Your task to perform on an android device: turn on notifications settings in the gmail app Image 0: 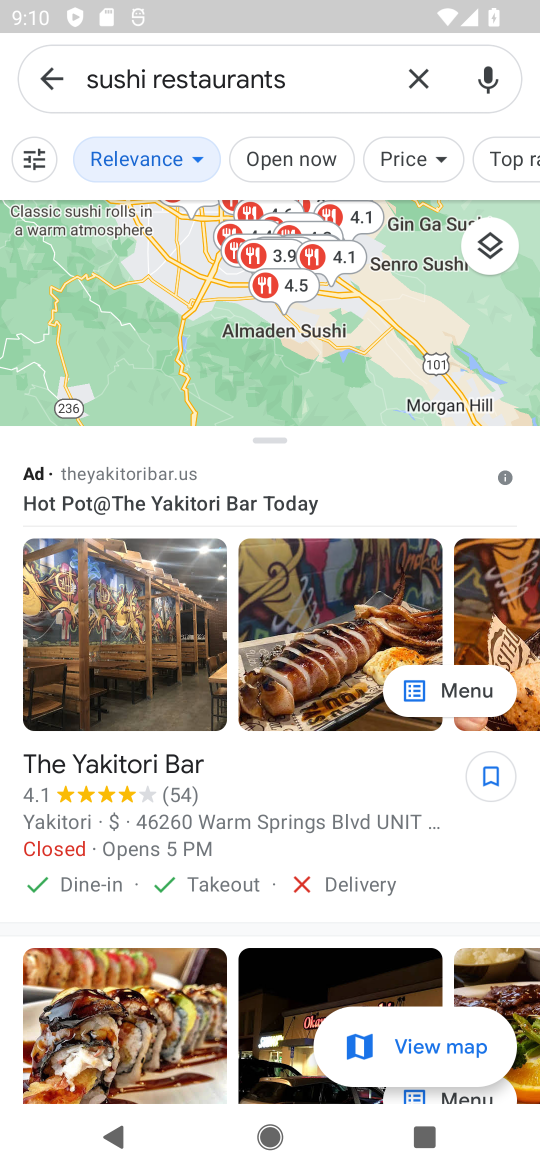
Step 0: press home button
Your task to perform on an android device: turn on notifications settings in the gmail app Image 1: 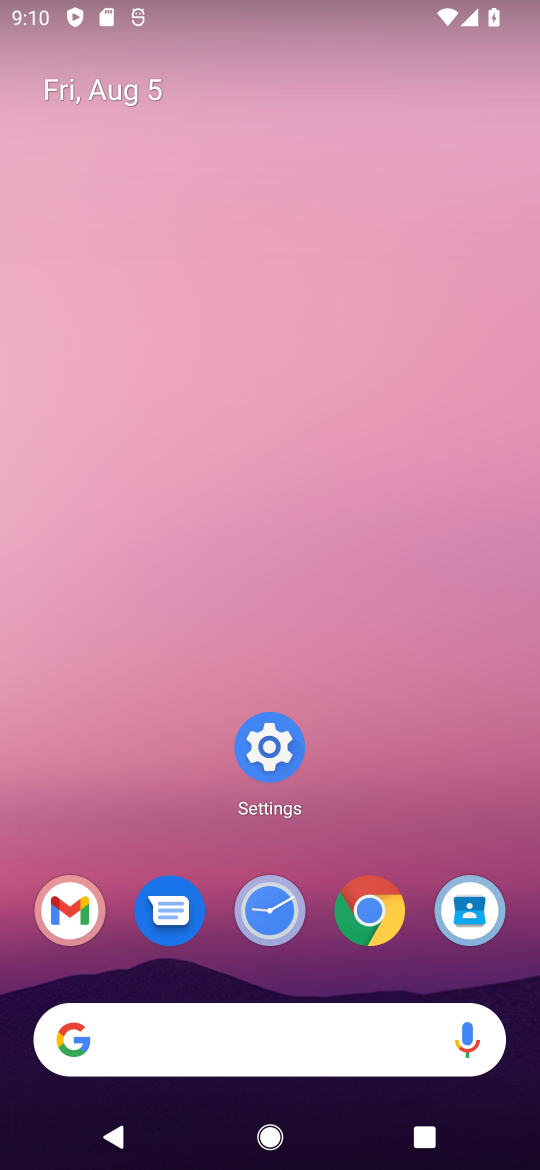
Step 1: drag from (279, 1024) to (371, 152)
Your task to perform on an android device: turn on notifications settings in the gmail app Image 2: 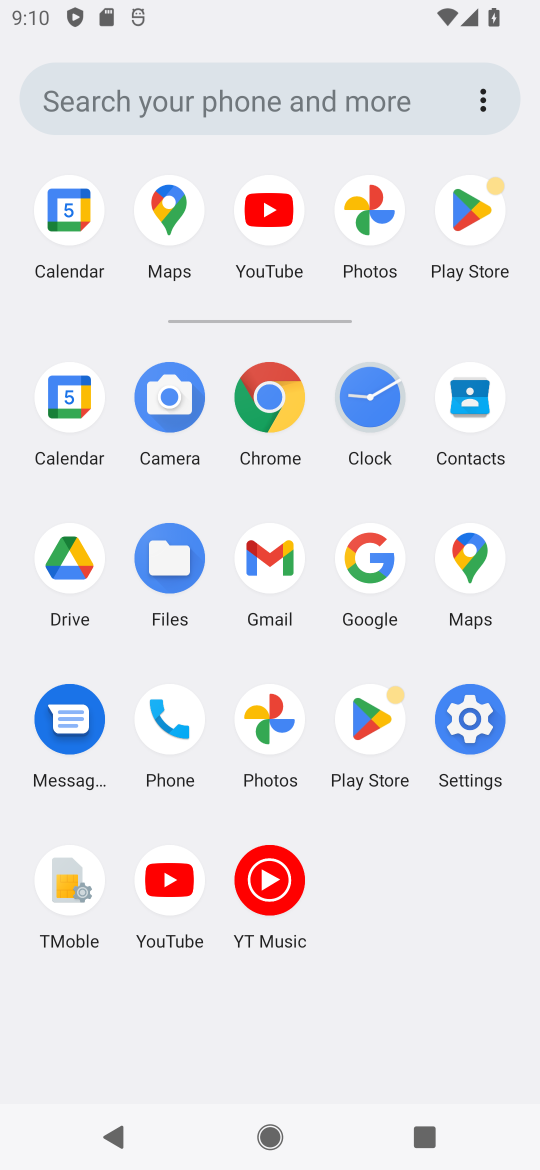
Step 2: click (267, 566)
Your task to perform on an android device: turn on notifications settings in the gmail app Image 3: 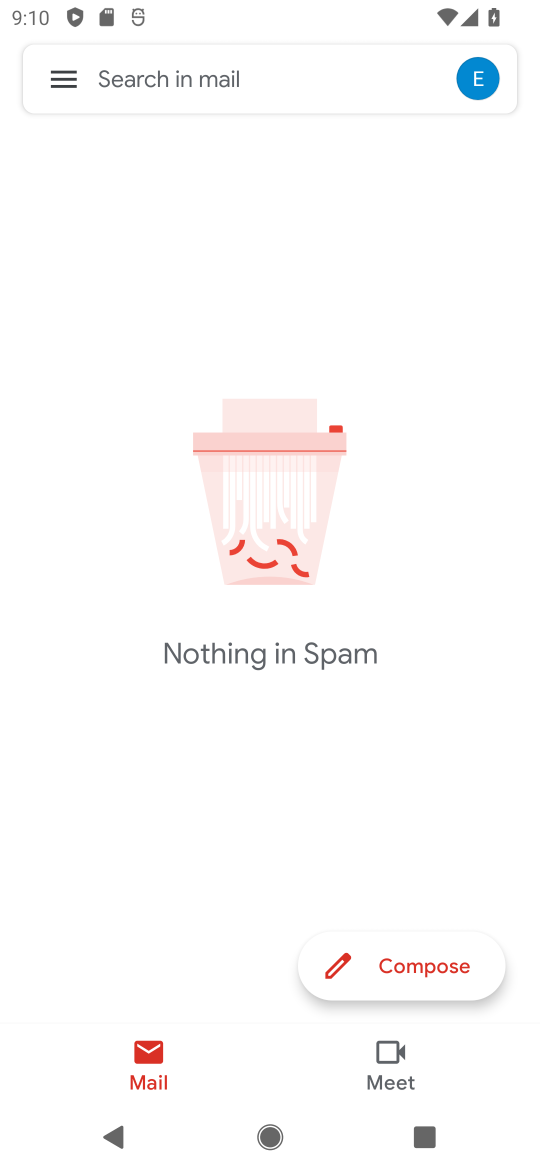
Step 3: click (56, 77)
Your task to perform on an android device: turn on notifications settings in the gmail app Image 4: 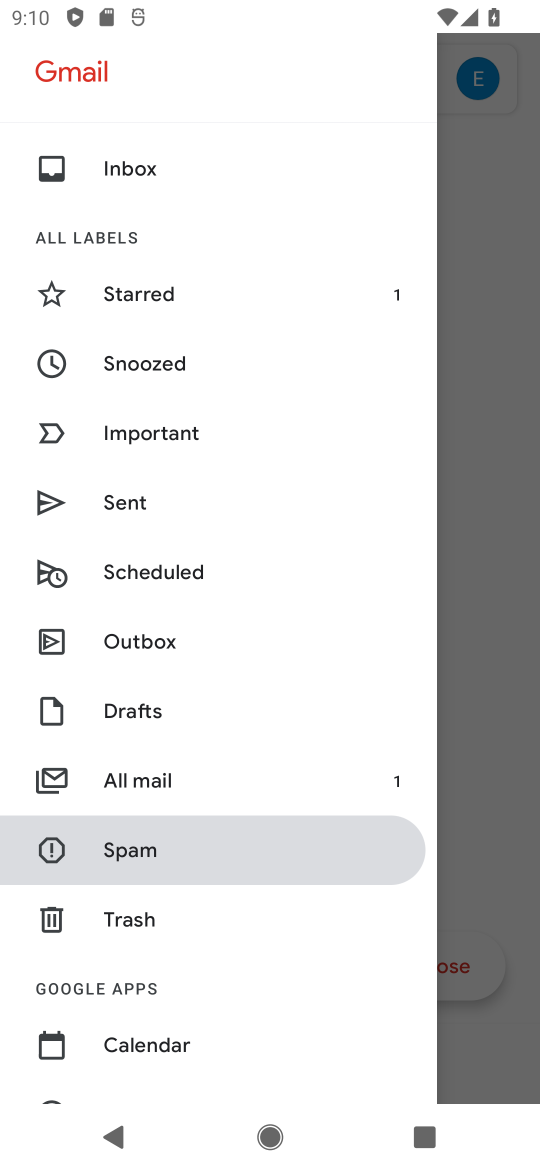
Step 4: drag from (236, 1000) to (317, 62)
Your task to perform on an android device: turn on notifications settings in the gmail app Image 5: 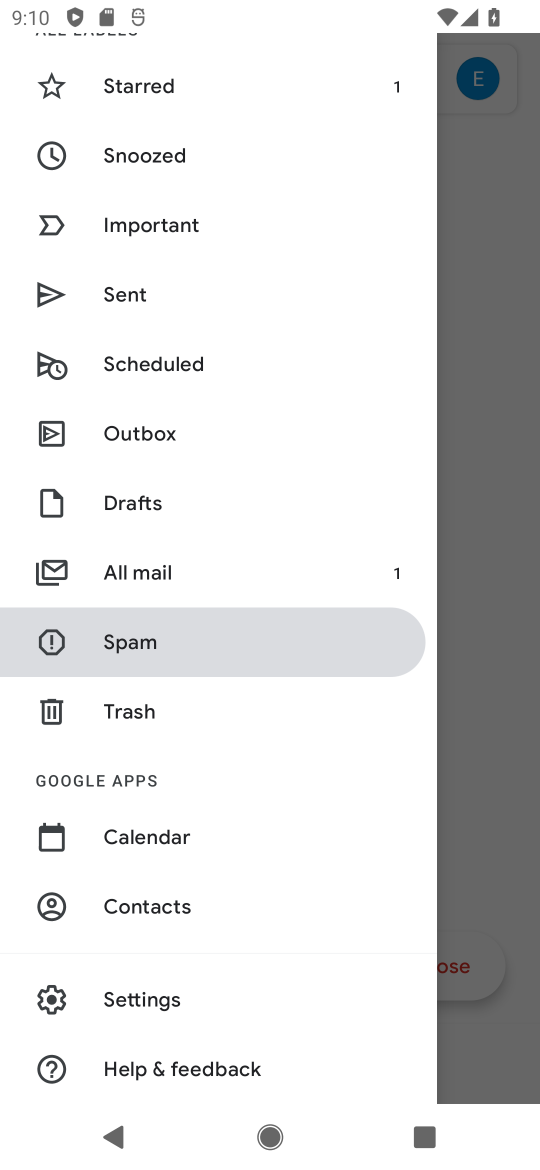
Step 5: click (156, 1001)
Your task to perform on an android device: turn on notifications settings in the gmail app Image 6: 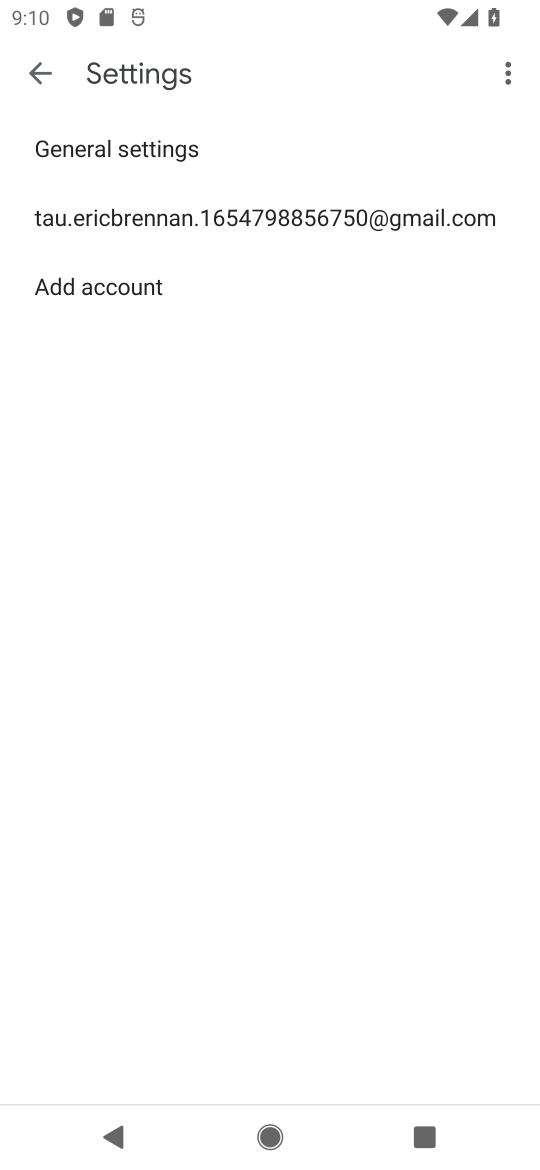
Step 6: click (308, 205)
Your task to perform on an android device: turn on notifications settings in the gmail app Image 7: 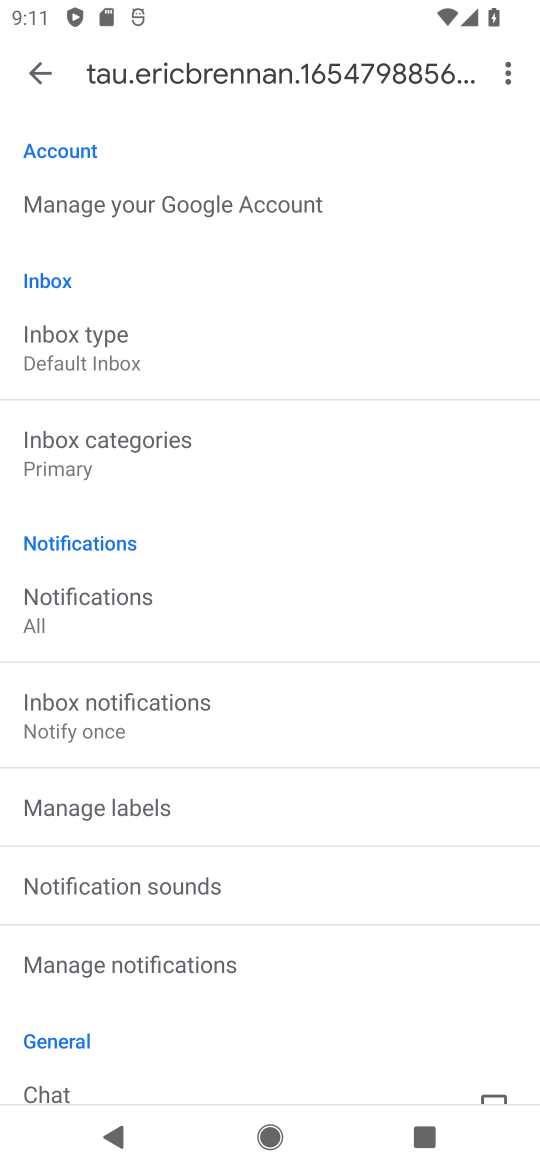
Step 7: click (95, 620)
Your task to perform on an android device: turn on notifications settings in the gmail app Image 8: 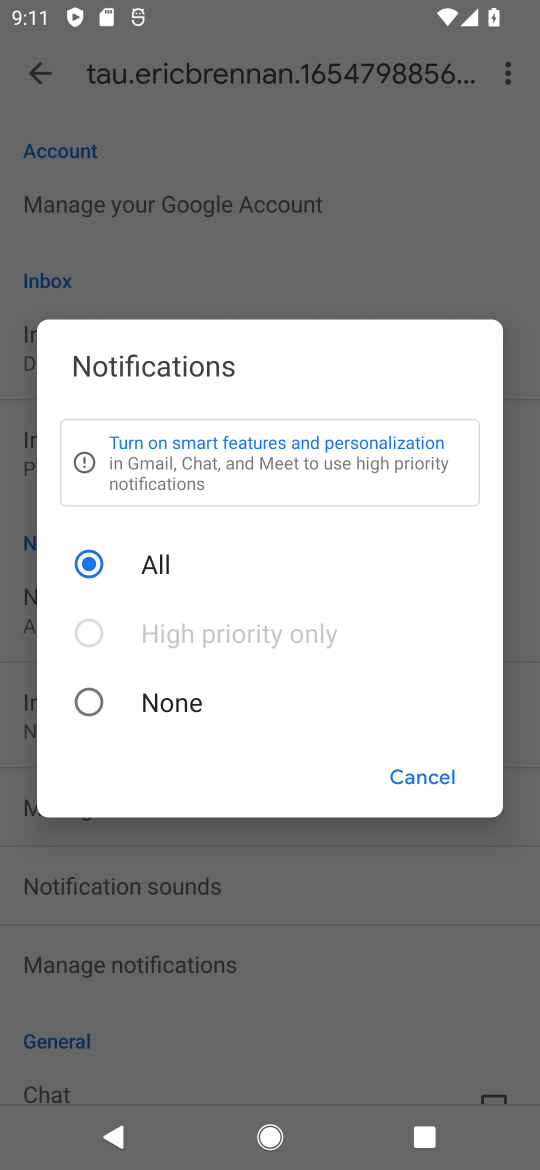
Step 8: task complete